Your task to perform on an android device: Go to Wikipedia Image 0: 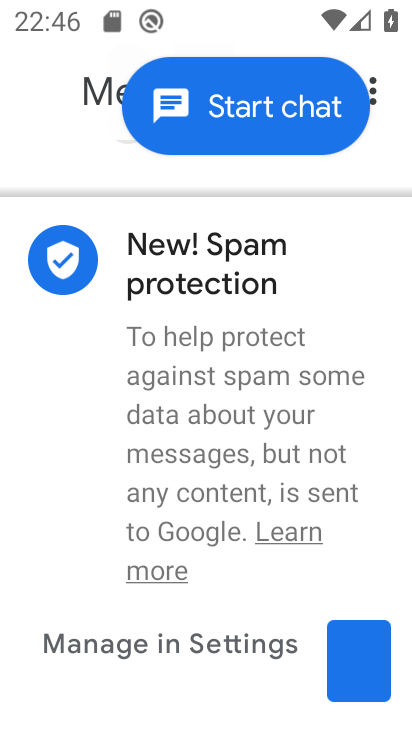
Step 0: press home button
Your task to perform on an android device: Go to Wikipedia Image 1: 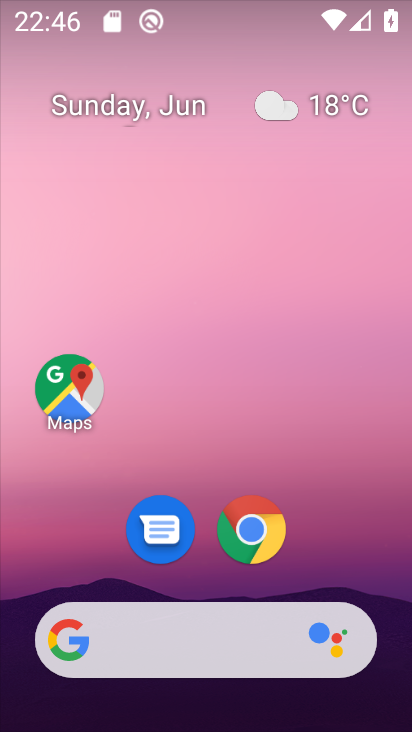
Step 1: click (269, 529)
Your task to perform on an android device: Go to Wikipedia Image 2: 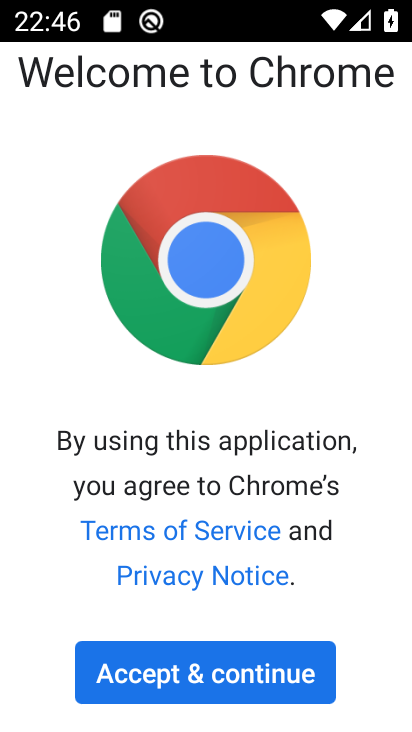
Step 2: click (298, 690)
Your task to perform on an android device: Go to Wikipedia Image 3: 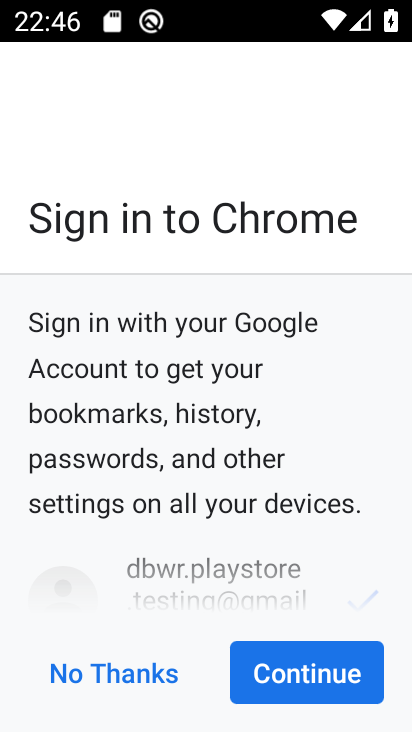
Step 3: click (307, 685)
Your task to perform on an android device: Go to Wikipedia Image 4: 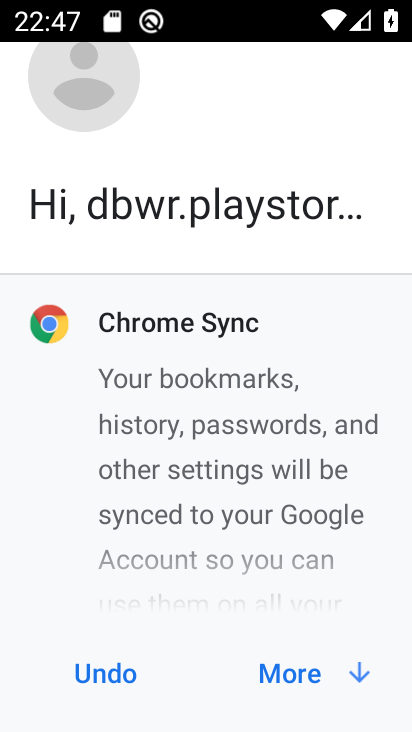
Step 4: click (307, 685)
Your task to perform on an android device: Go to Wikipedia Image 5: 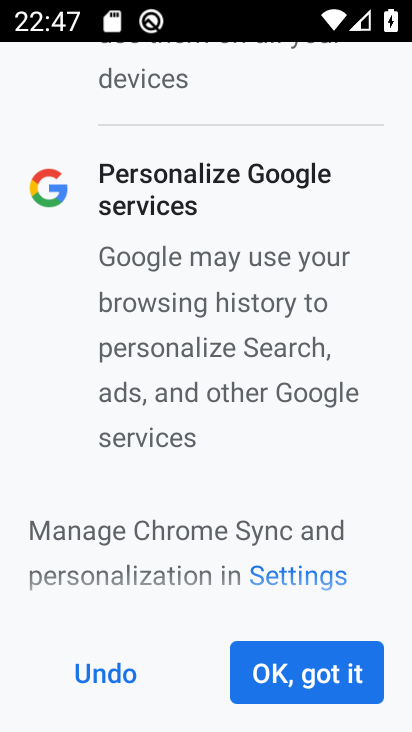
Step 5: click (366, 683)
Your task to perform on an android device: Go to Wikipedia Image 6: 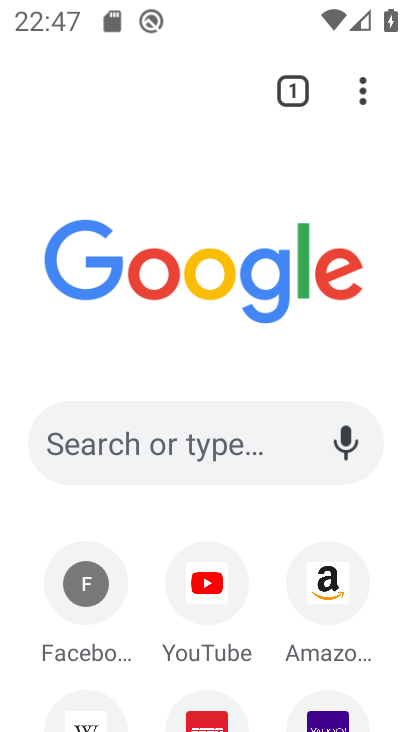
Step 6: drag from (218, 661) to (285, 379)
Your task to perform on an android device: Go to Wikipedia Image 7: 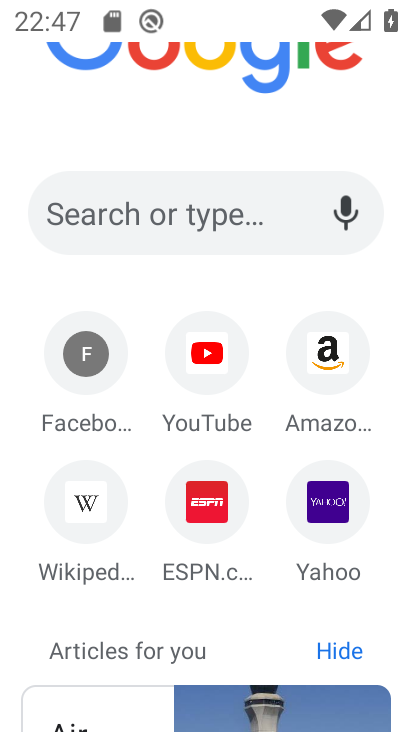
Step 7: click (92, 512)
Your task to perform on an android device: Go to Wikipedia Image 8: 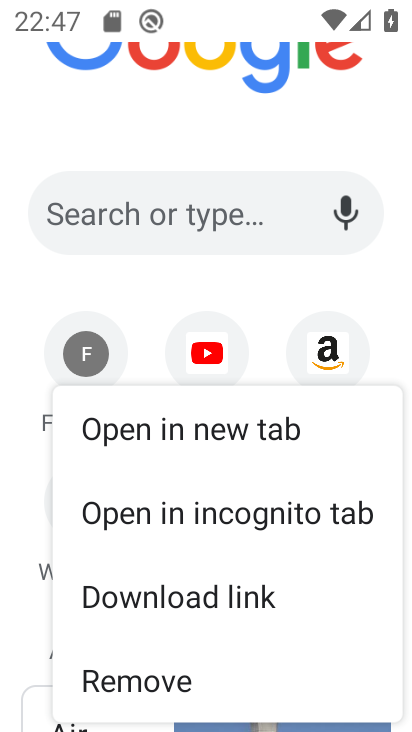
Step 8: press back button
Your task to perform on an android device: Go to Wikipedia Image 9: 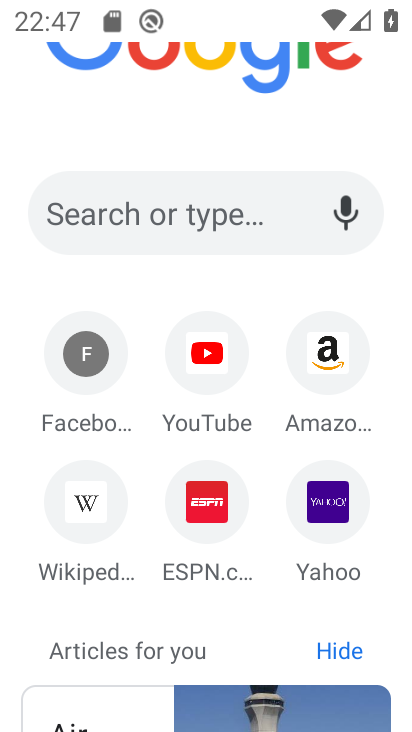
Step 9: click (86, 490)
Your task to perform on an android device: Go to Wikipedia Image 10: 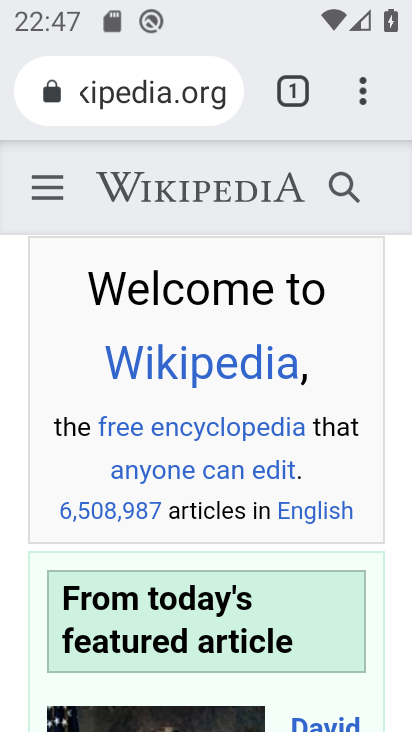
Step 10: task complete